Your task to perform on an android device: Go to Google maps Image 0: 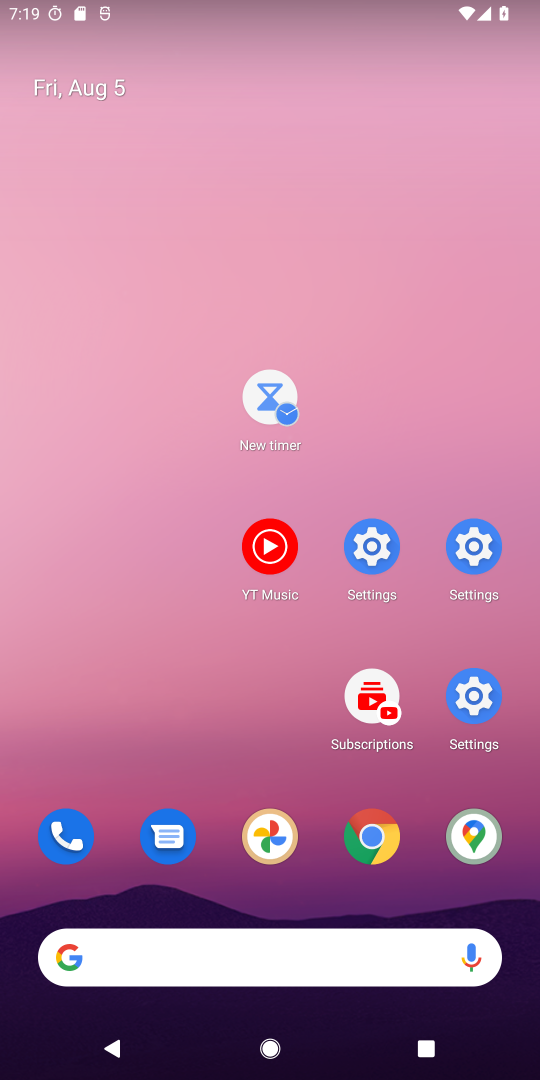
Step 0: drag from (367, 807) to (211, 43)
Your task to perform on an android device: Go to Google maps Image 1: 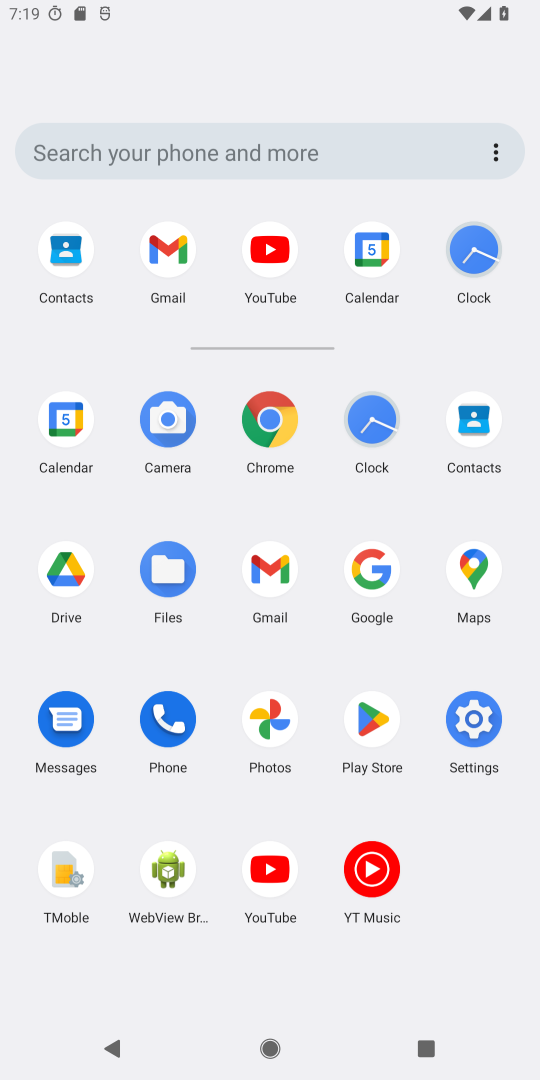
Step 1: drag from (274, 695) to (274, 154)
Your task to perform on an android device: Go to Google maps Image 2: 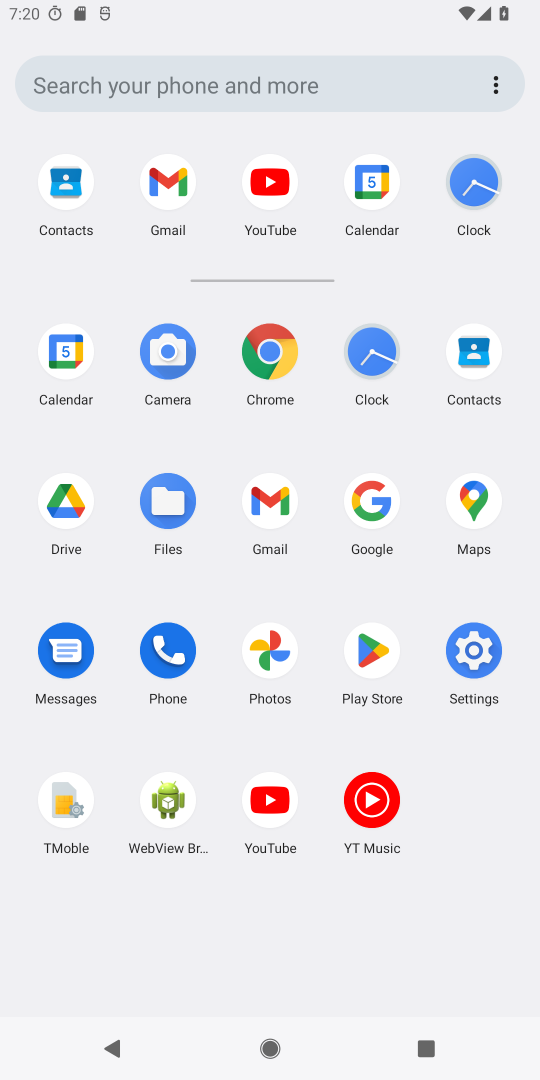
Step 2: click (377, 495)
Your task to perform on an android device: Go to Google maps Image 3: 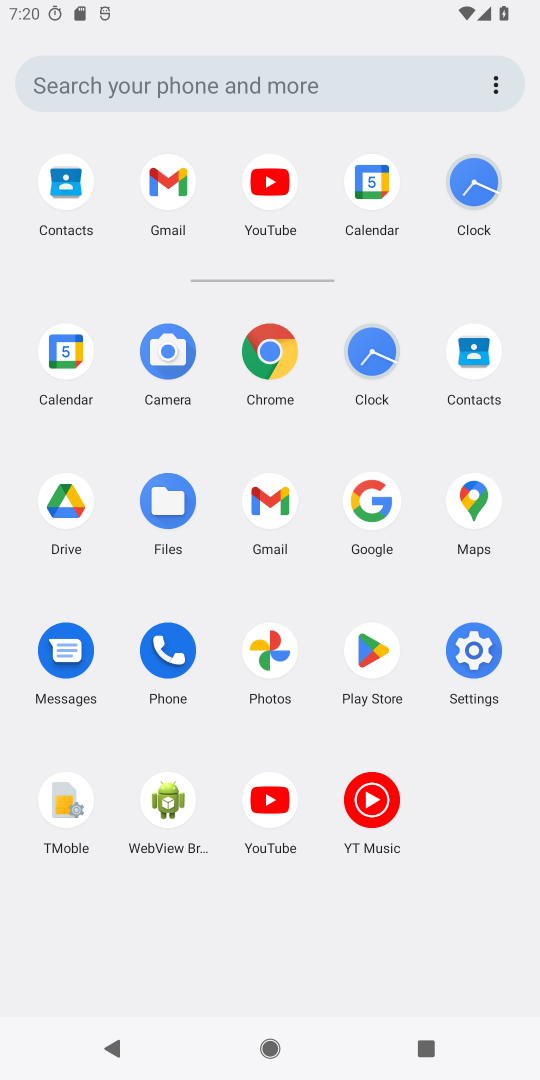
Step 3: click (377, 495)
Your task to perform on an android device: Go to Google maps Image 4: 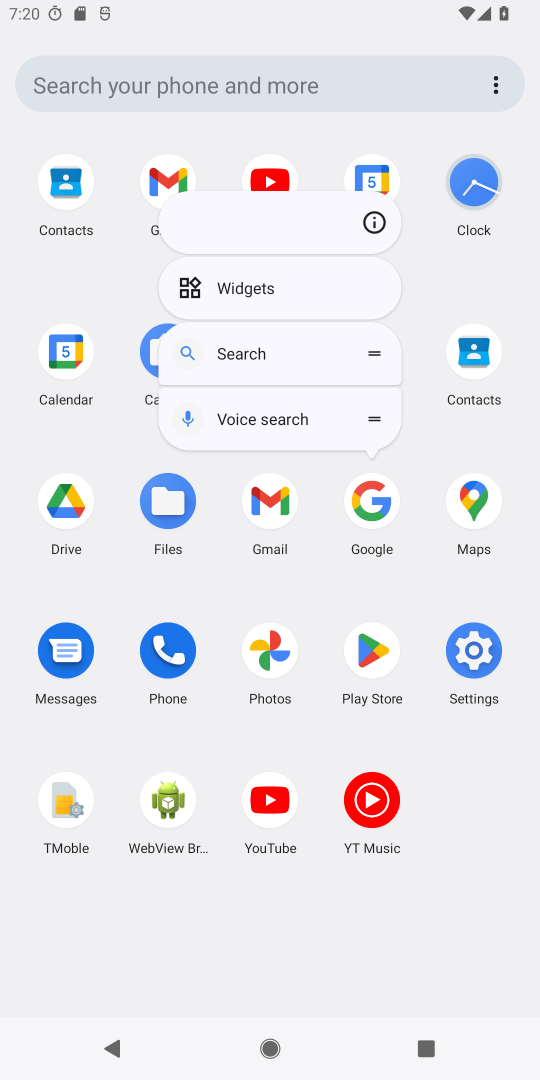
Step 4: click (370, 509)
Your task to perform on an android device: Go to Google maps Image 5: 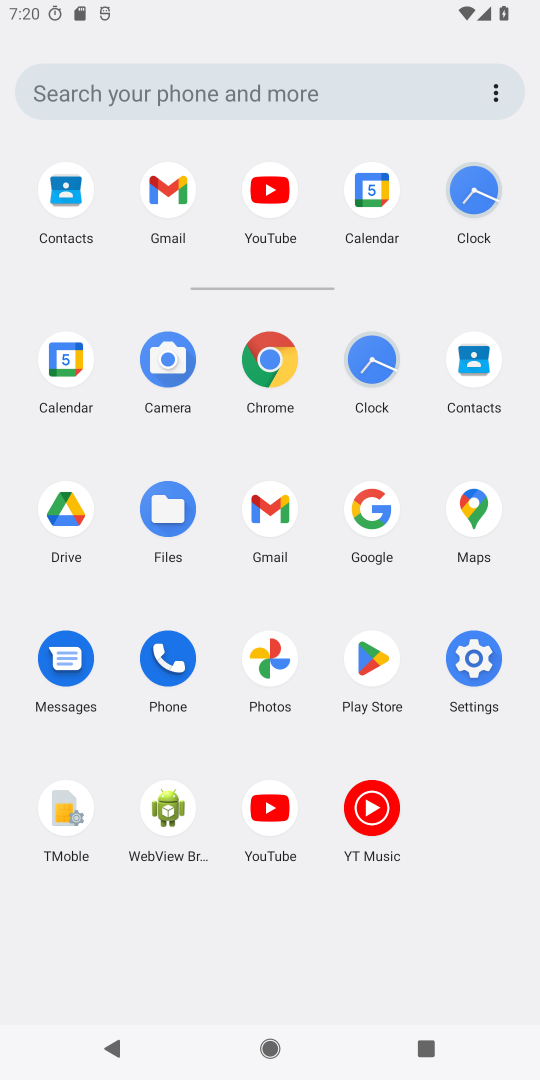
Step 5: click (374, 526)
Your task to perform on an android device: Go to Google maps Image 6: 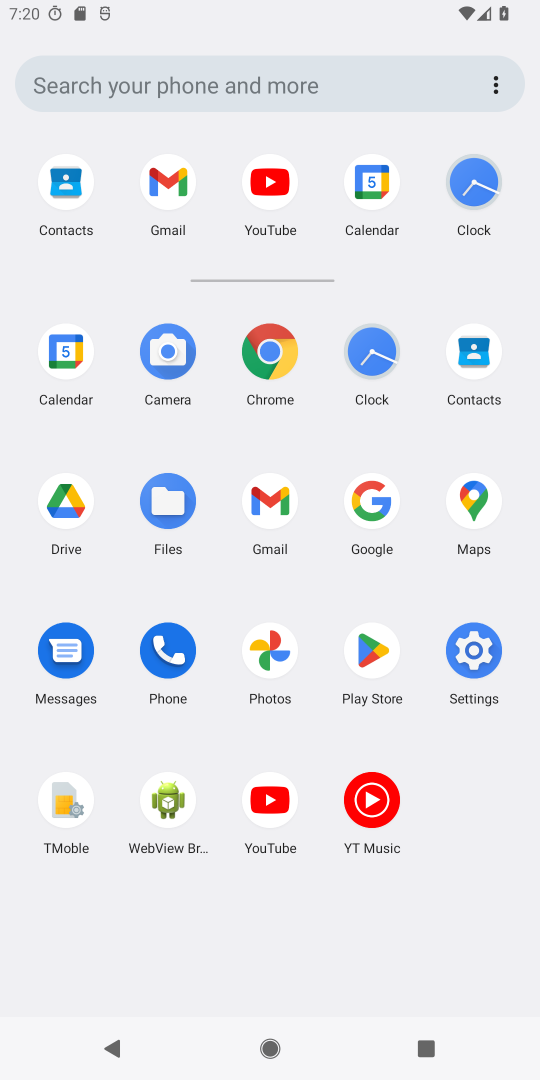
Step 6: click (466, 483)
Your task to perform on an android device: Go to Google maps Image 7: 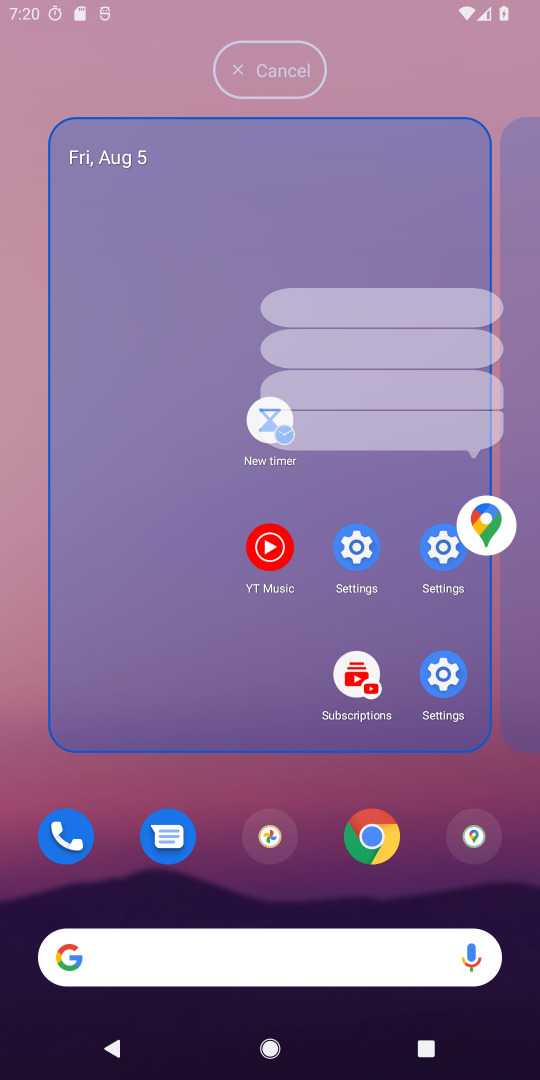
Step 7: click (474, 506)
Your task to perform on an android device: Go to Google maps Image 8: 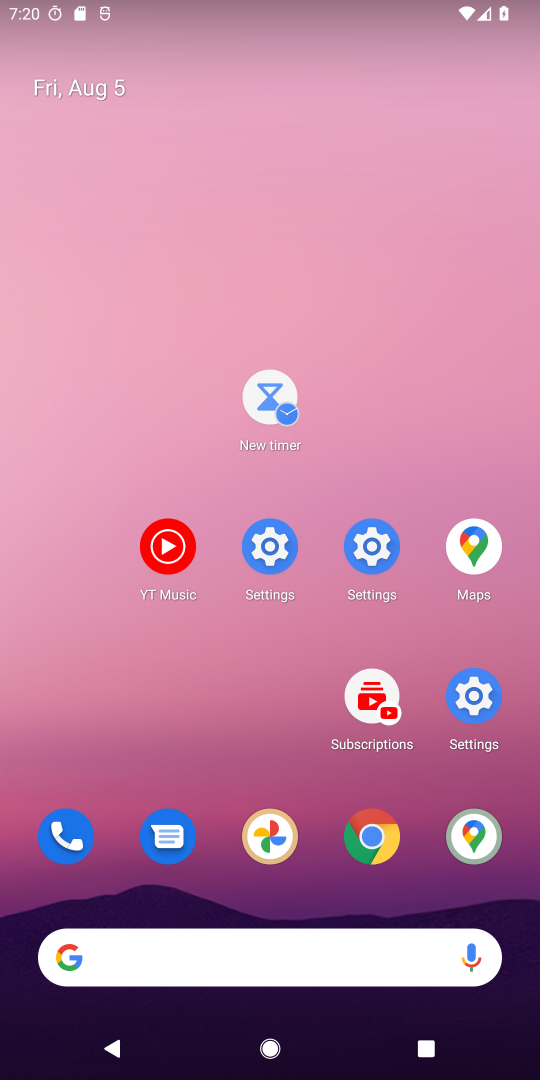
Step 8: drag from (312, 885) to (233, 592)
Your task to perform on an android device: Go to Google maps Image 9: 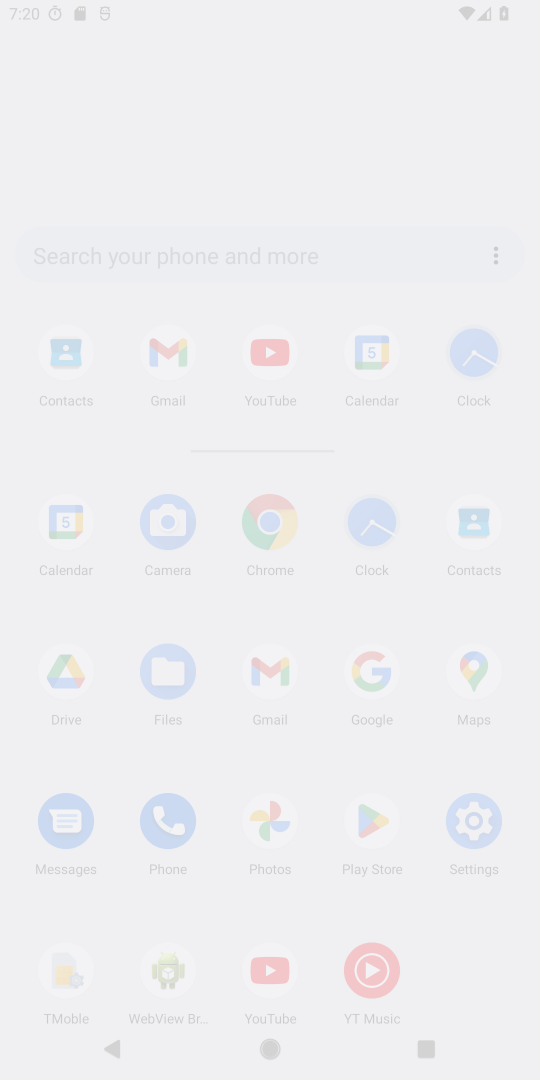
Step 9: drag from (242, 524) to (202, 222)
Your task to perform on an android device: Go to Google maps Image 10: 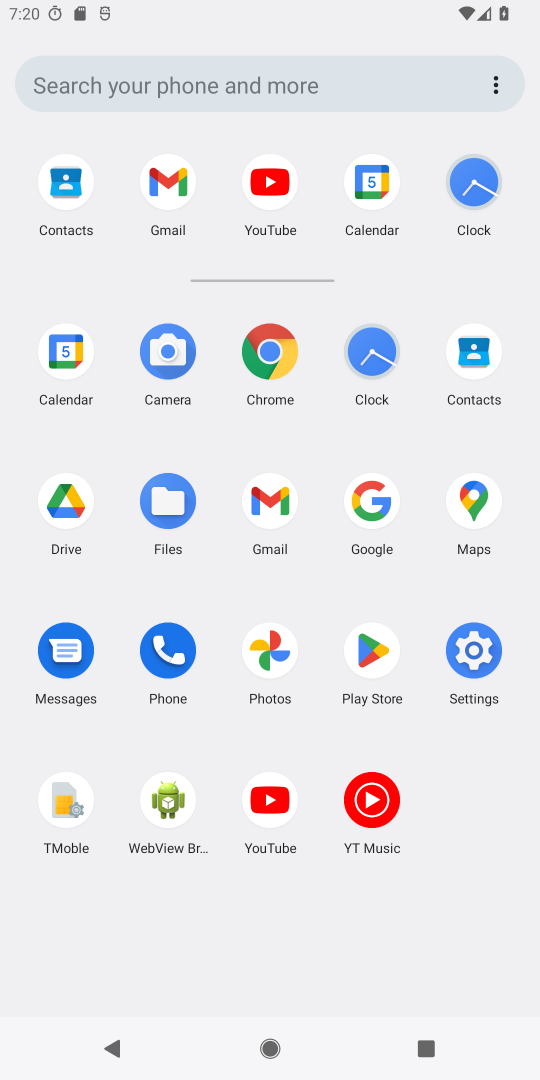
Step 10: click (248, 739)
Your task to perform on an android device: Go to Google maps Image 11: 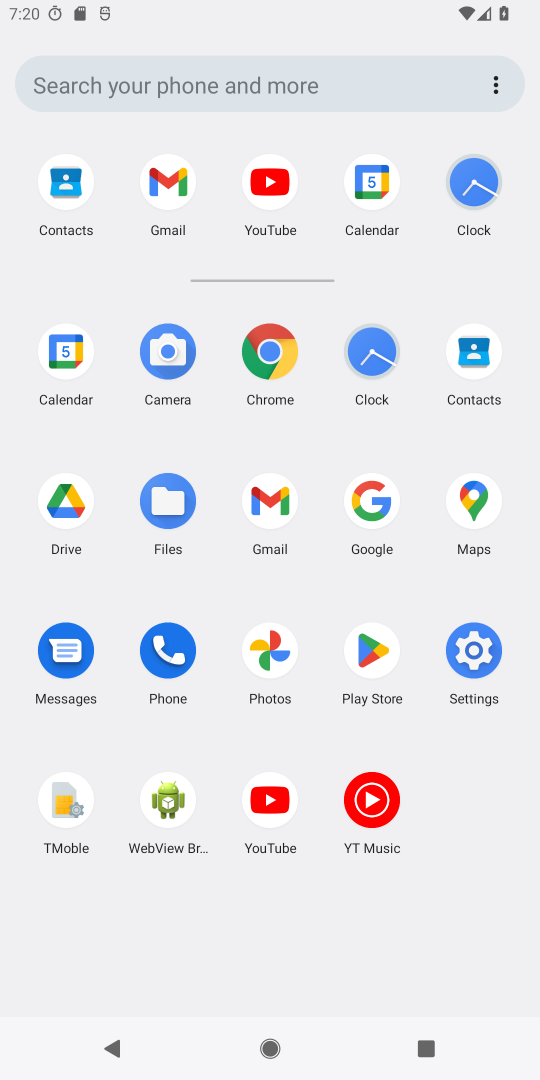
Step 11: click (464, 513)
Your task to perform on an android device: Go to Google maps Image 12: 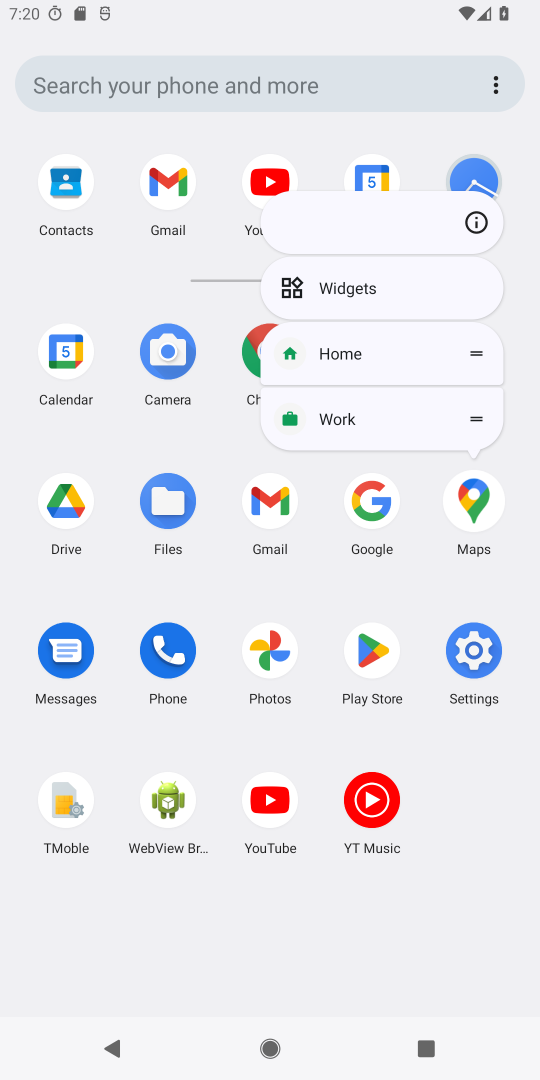
Step 12: drag from (471, 510) to (518, 418)
Your task to perform on an android device: Go to Google maps Image 13: 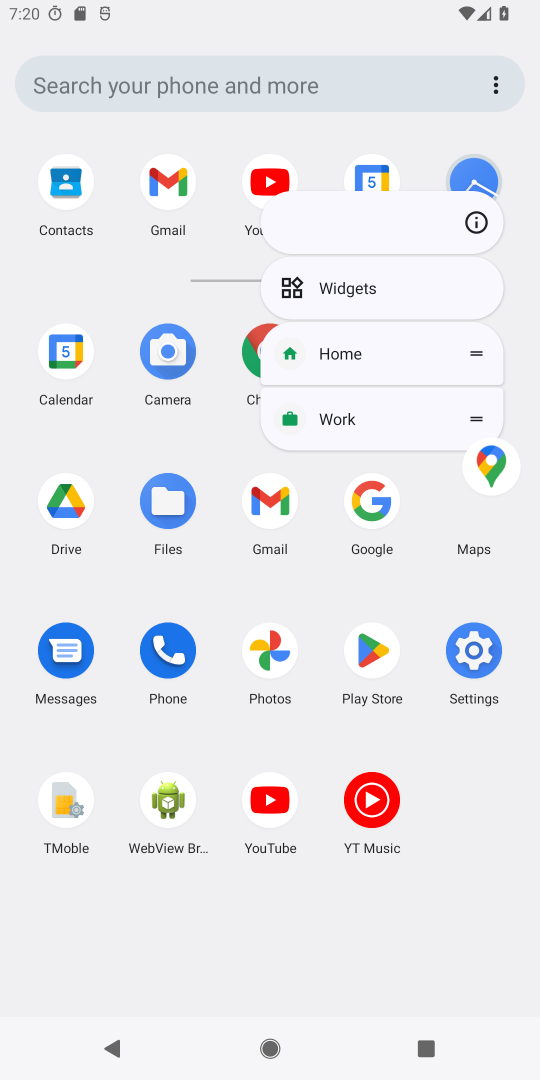
Step 13: click (476, 494)
Your task to perform on an android device: Go to Google maps Image 14: 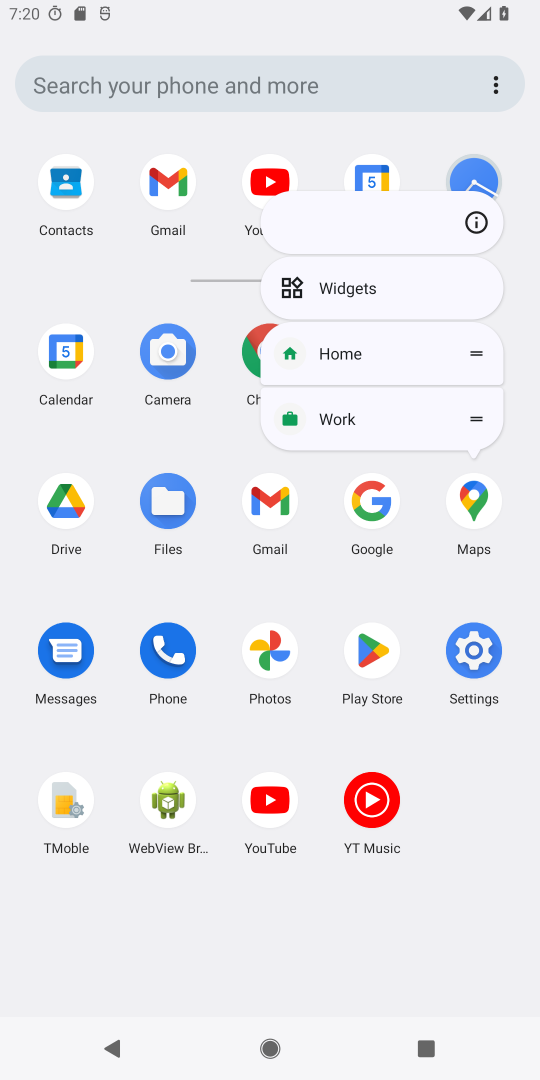
Step 14: click (476, 494)
Your task to perform on an android device: Go to Google maps Image 15: 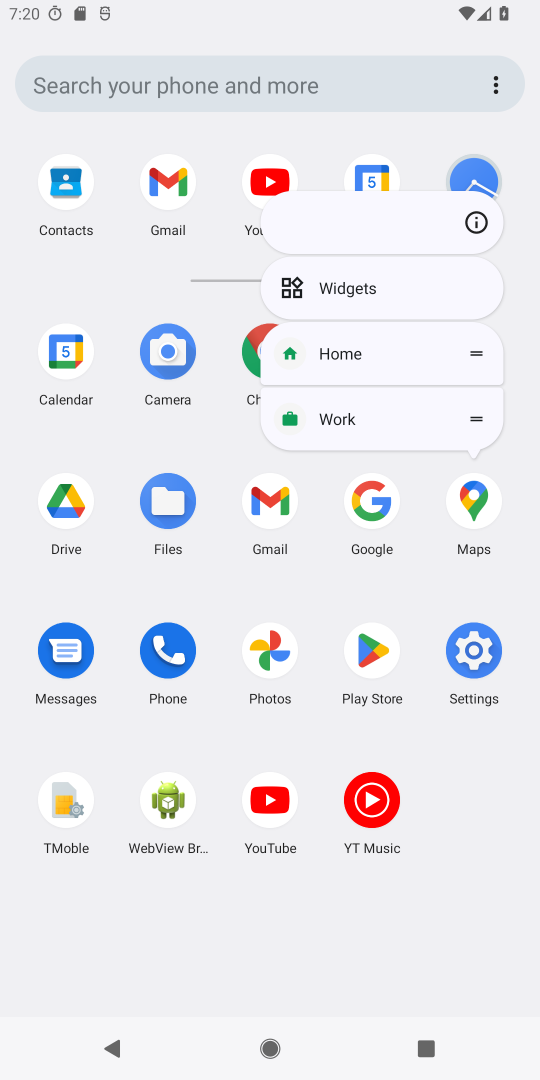
Step 15: click (480, 500)
Your task to perform on an android device: Go to Google maps Image 16: 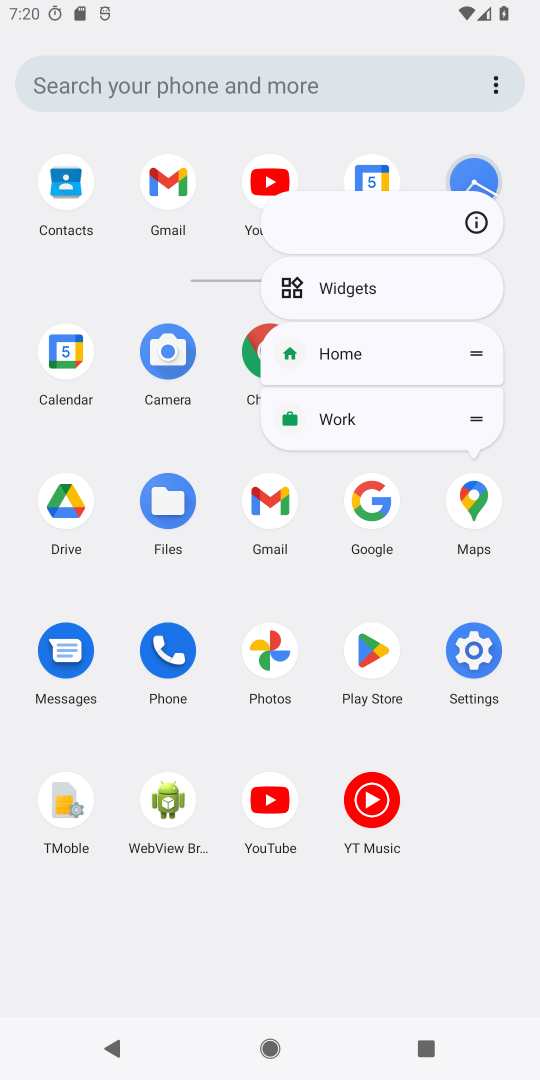
Step 16: click (471, 502)
Your task to perform on an android device: Go to Google maps Image 17: 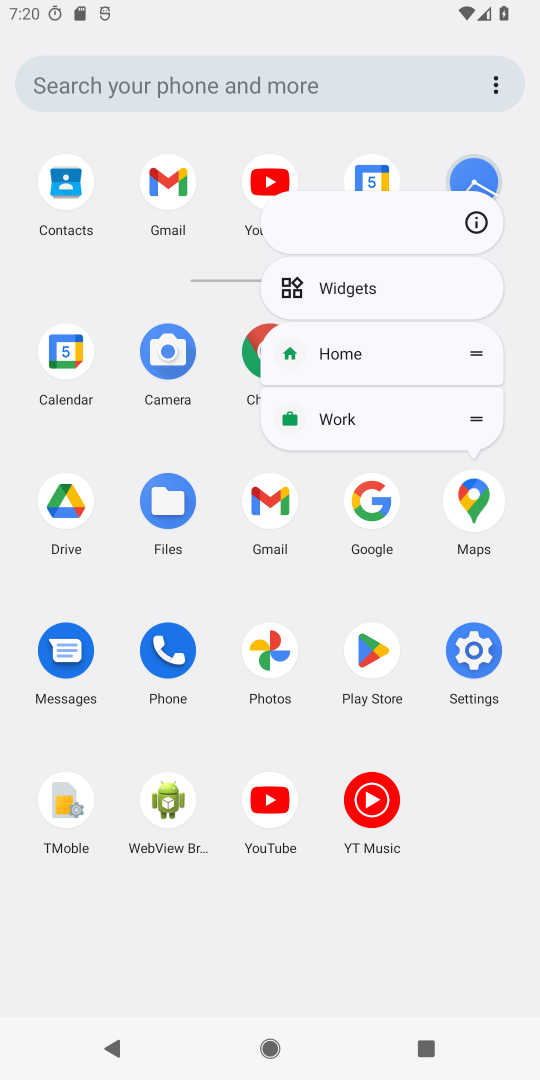
Step 17: click (469, 501)
Your task to perform on an android device: Go to Google maps Image 18: 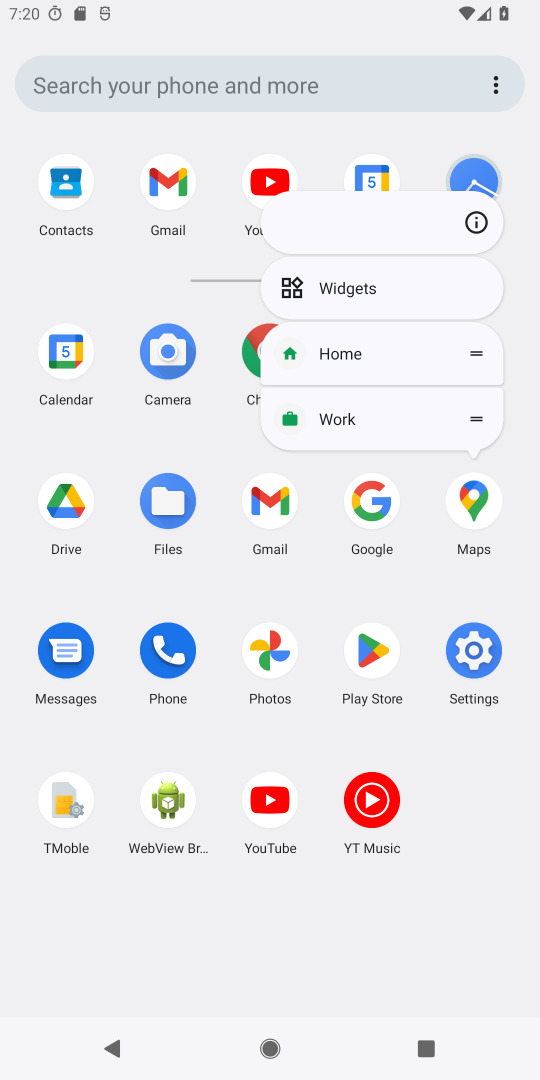
Step 18: click (469, 501)
Your task to perform on an android device: Go to Google maps Image 19: 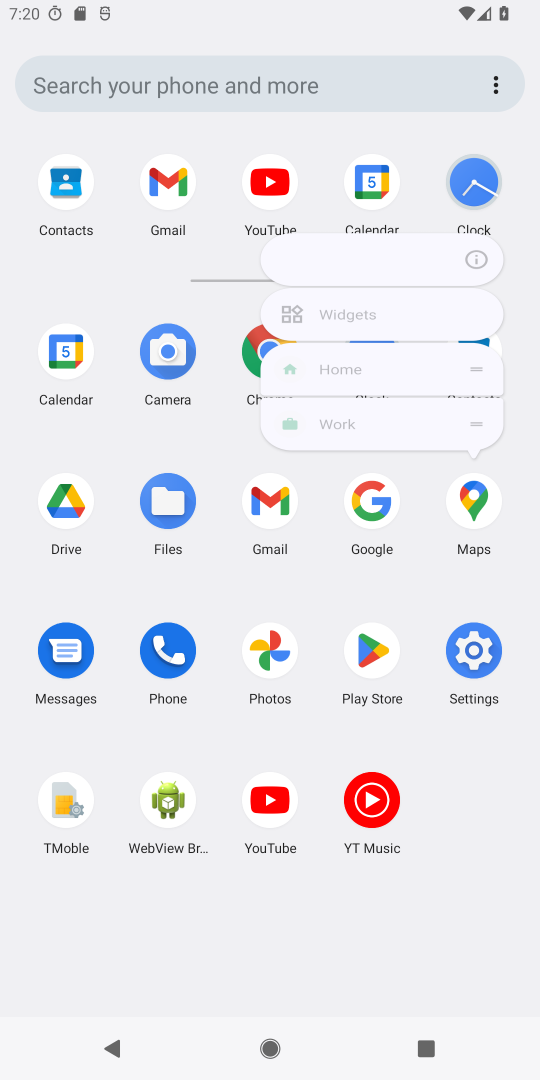
Step 19: click (469, 501)
Your task to perform on an android device: Go to Google maps Image 20: 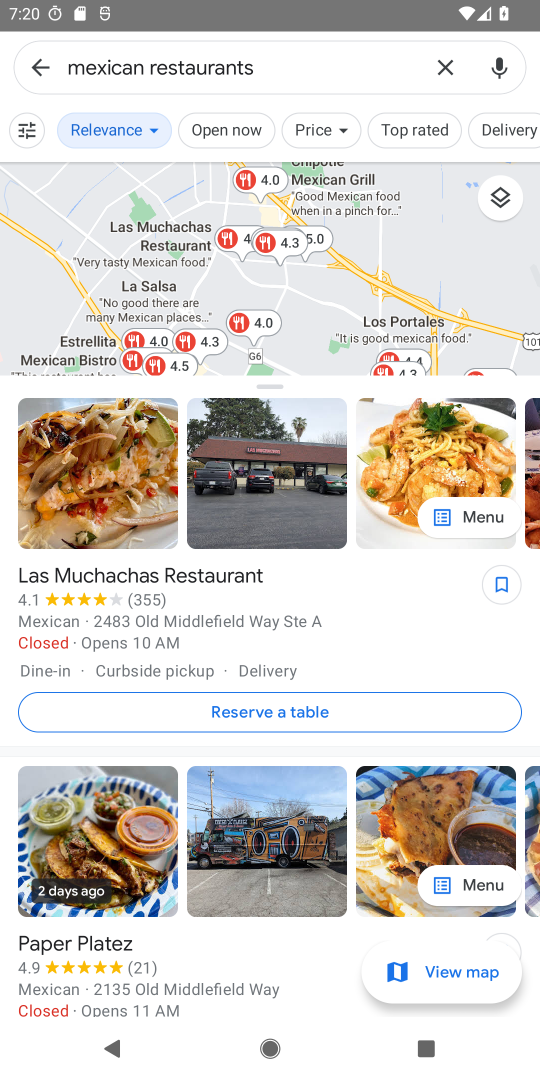
Step 20: task complete